Your task to perform on an android device: Open calendar and show me the first week of next month Image 0: 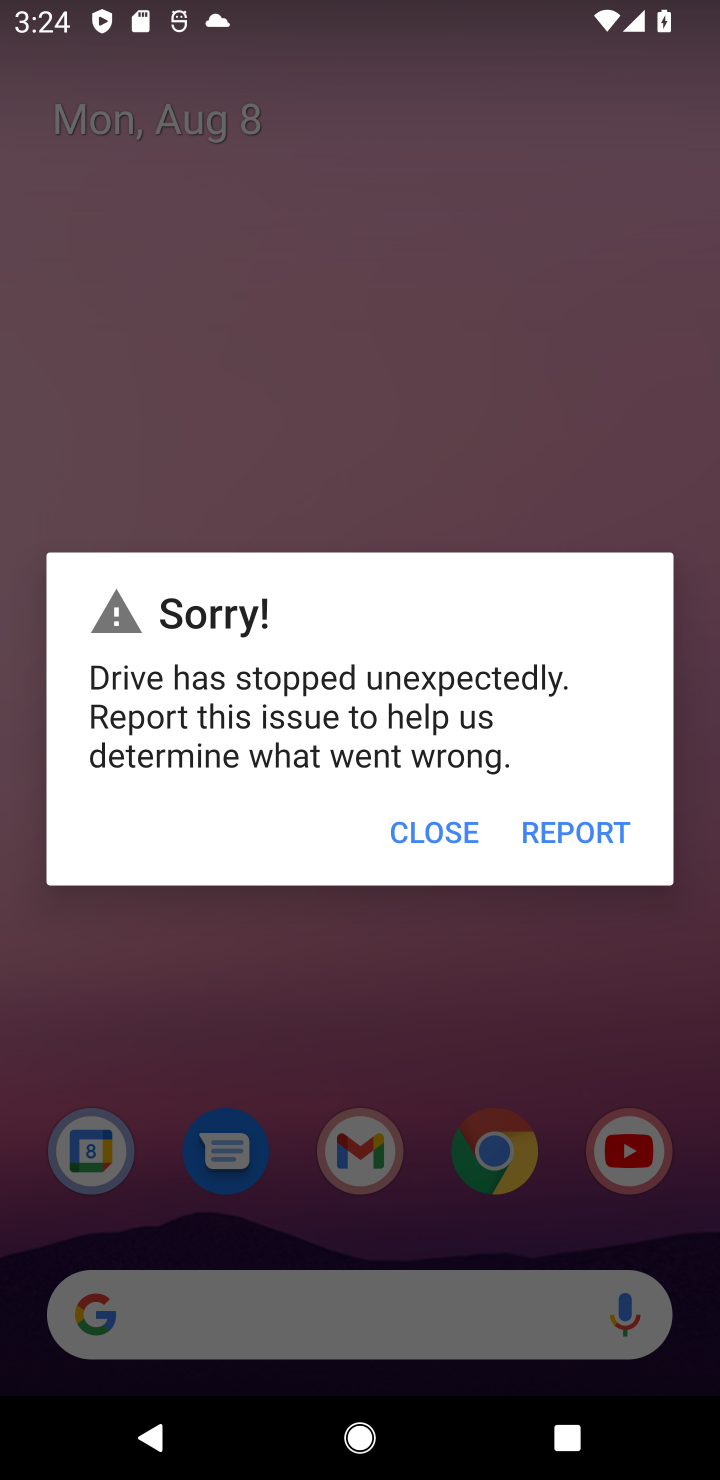
Step 0: click (424, 854)
Your task to perform on an android device: Open calendar and show me the first week of next month Image 1: 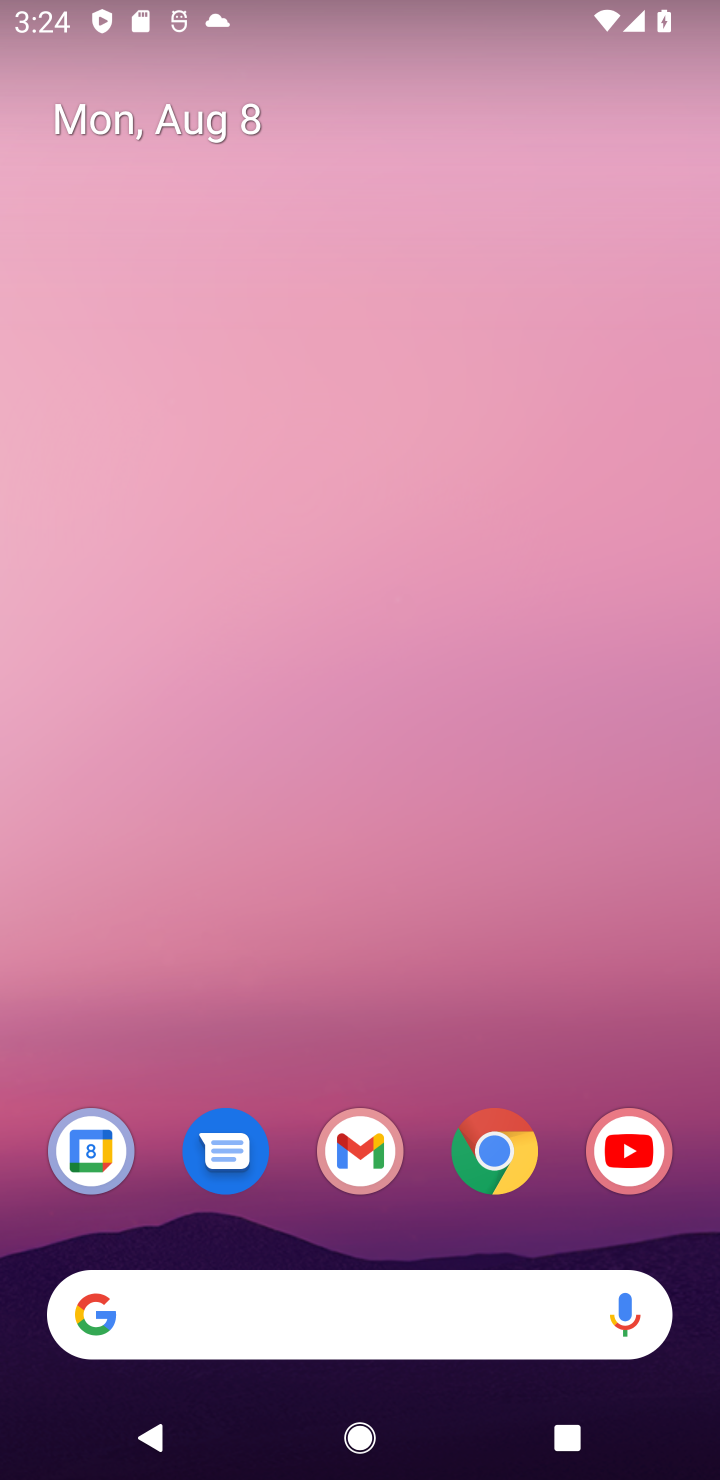
Step 1: click (108, 1157)
Your task to perform on an android device: Open calendar and show me the first week of next month Image 2: 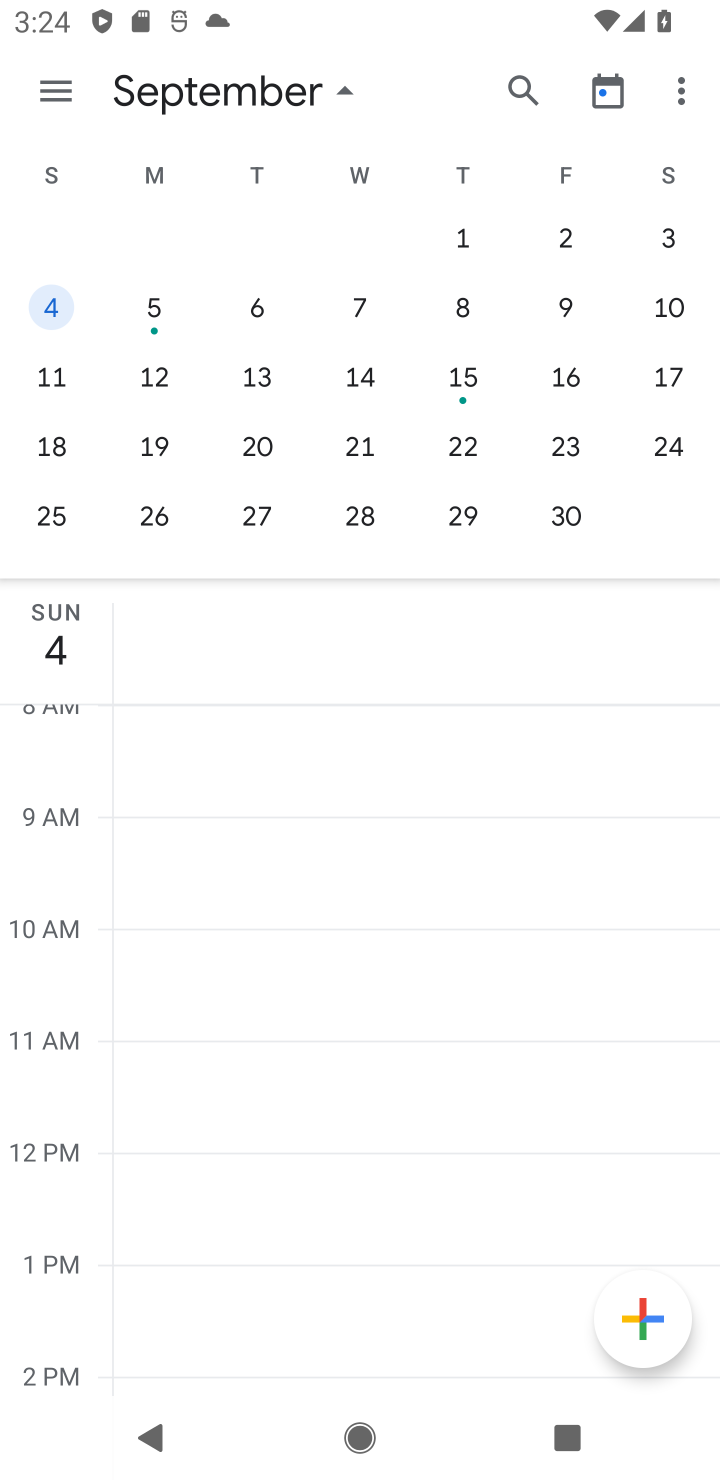
Step 2: click (452, 252)
Your task to perform on an android device: Open calendar and show me the first week of next month Image 3: 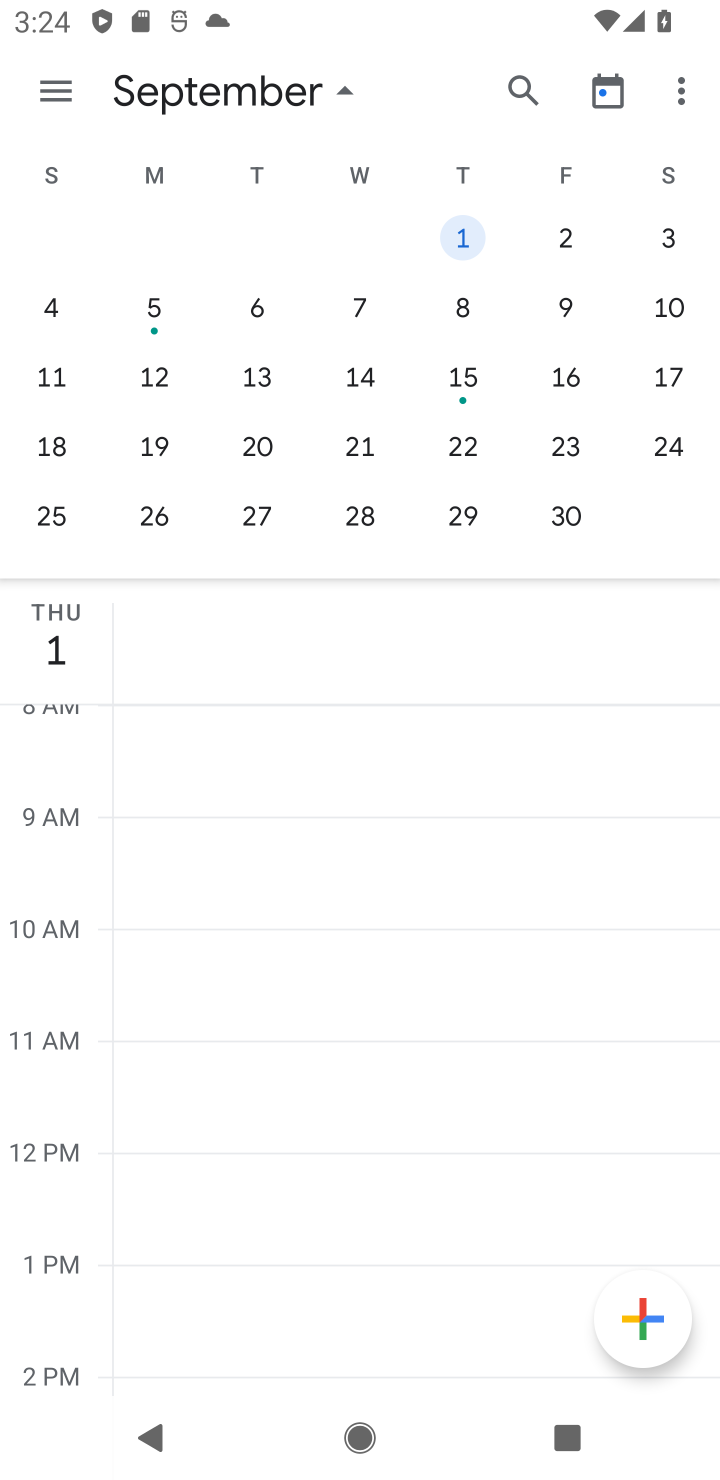
Step 3: task complete